Your task to perform on an android device: set default search engine in the chrome app Image 0: 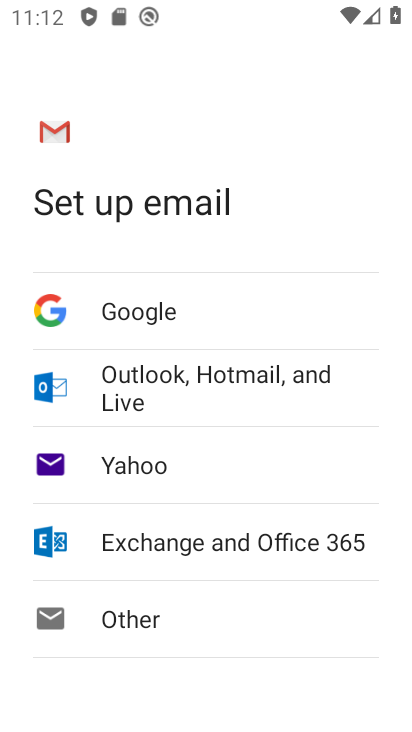
Step 0: press home button
Your task to perform on an android device: set default search engine in the chrome app Image 1: 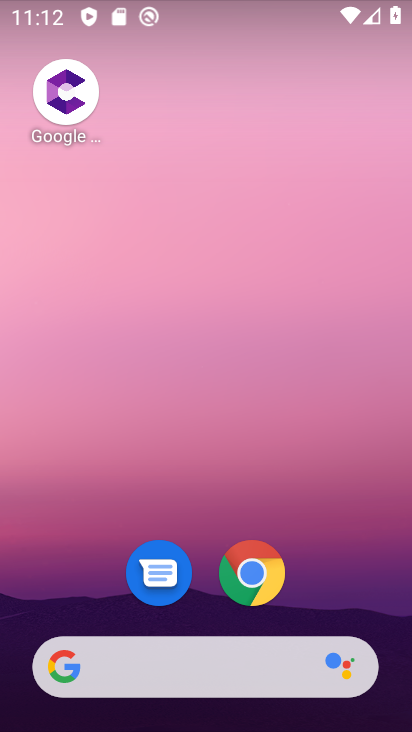
Step 1: click (241, 565)
Your task to perform on an android device: set default search engine in the chrome app Image 2: 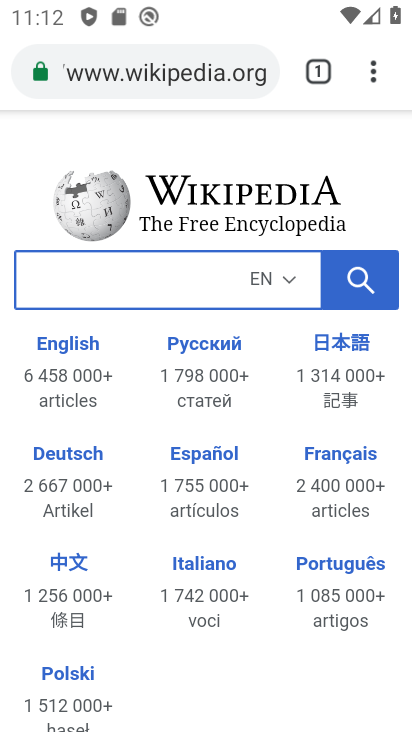
Step 2: click (375, 65)
Your task to perform on an android device: set default search engine in the chrome app Image 3: 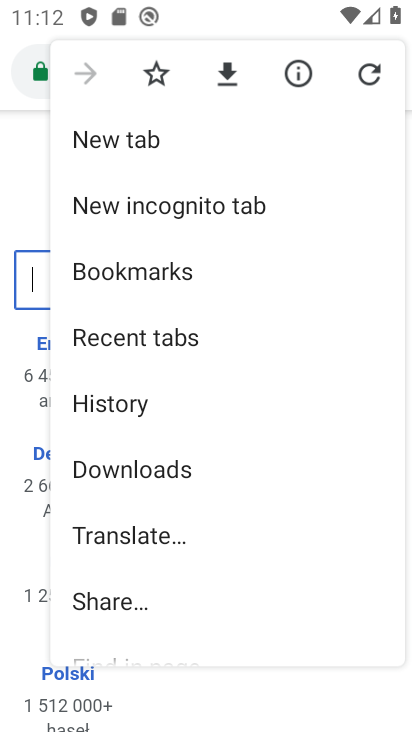
Step 3: drag from (195, 574) to (251, 286)
Your task to perform on an android device: set default search engine in the chrome app Image 4: 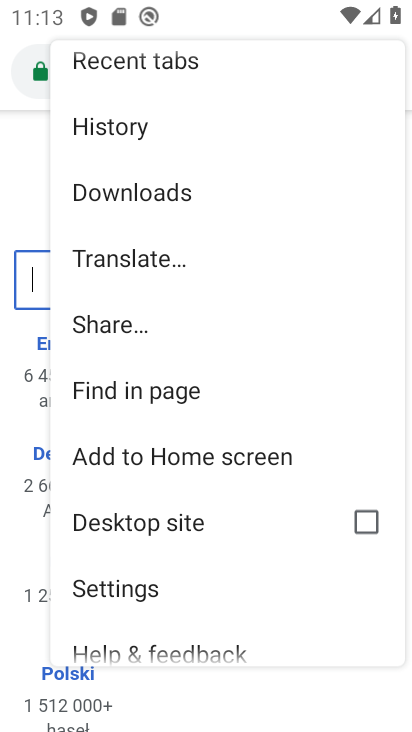
Step 4: click (139, 592)
Your task to perform on an android device: set default search engine in the chrome app Image 5: 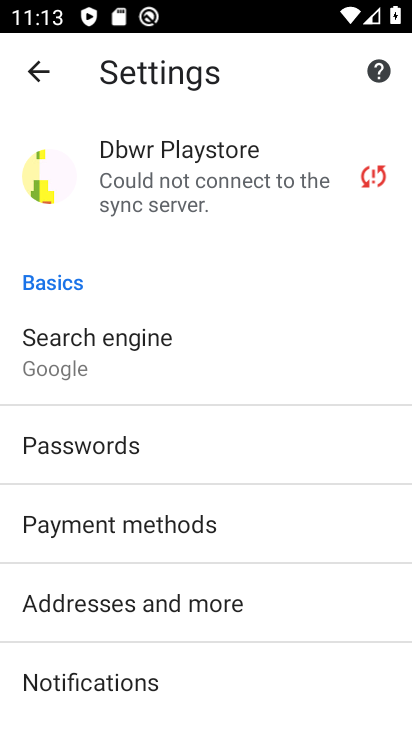
Step 5: click (142, 354)
Your task to perform on an android device: set default search engine in the chrome app Image 6: 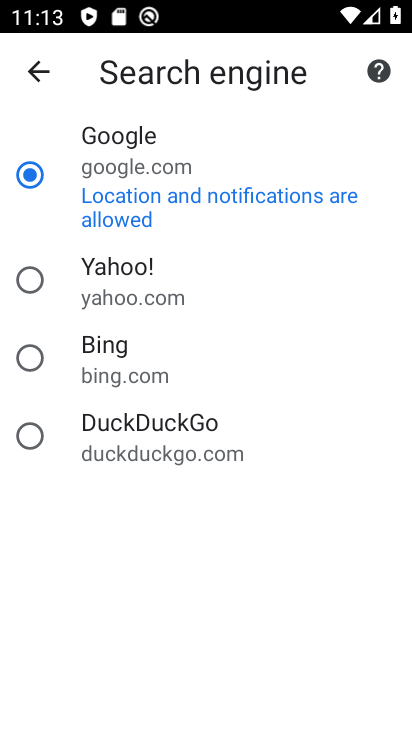
Step 6: click (33, 175)
Your task to perform on an android device: set default search engine in the chrome app Image 7: 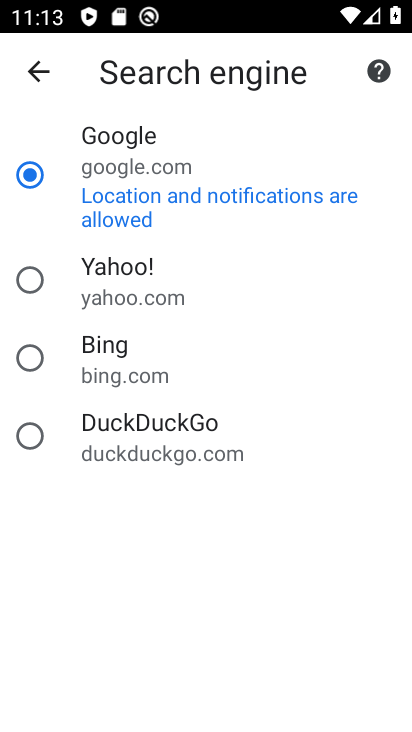
Step 7: task complete